Your task to perform on an android device: Clear the cart on amazon. Search for "bose soundlink" on amazon, select the first entry, add it to the cart, then select checkout. Image 0: 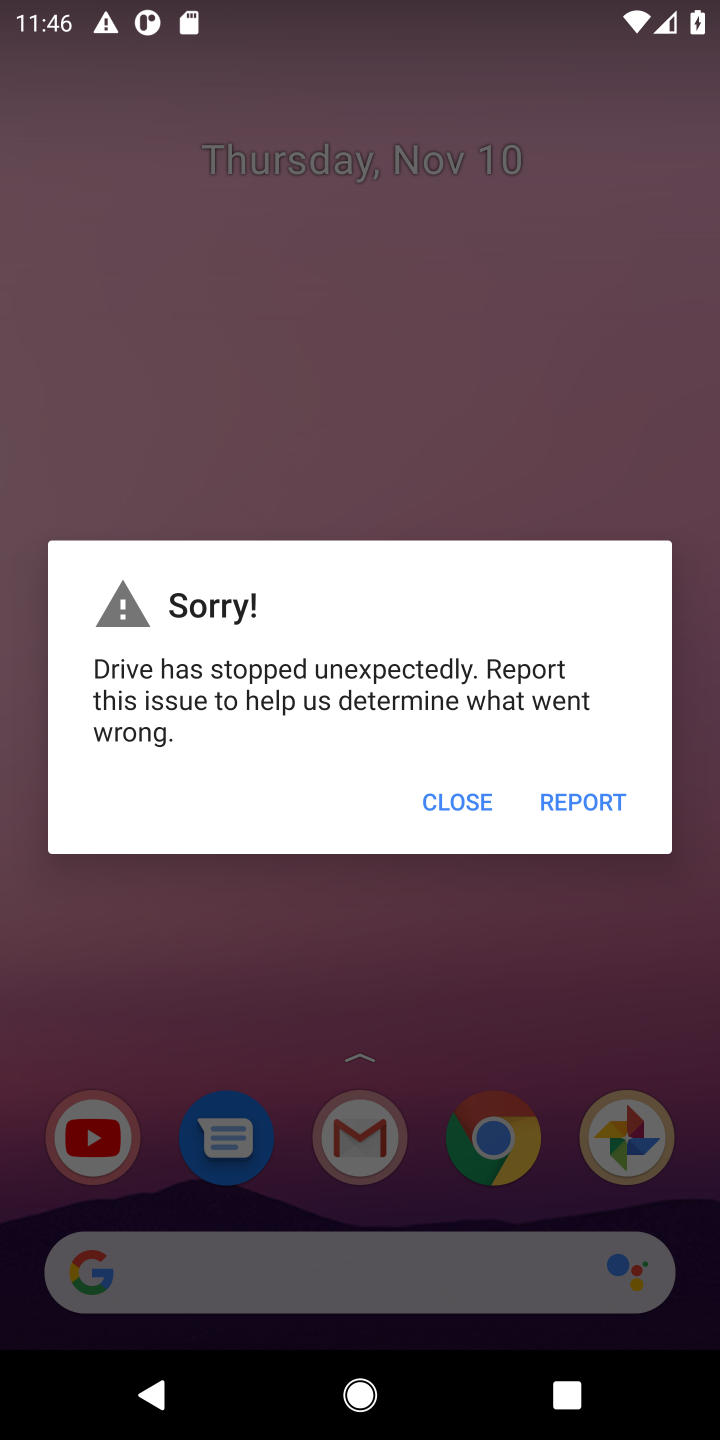
Step 0: click (476, 806)
Your task to perform on an android device: Clear the cart on amazon. Search for "bose soundlink" on amazon, select the first entry, add it to the cart, then select checkout. Image 1: 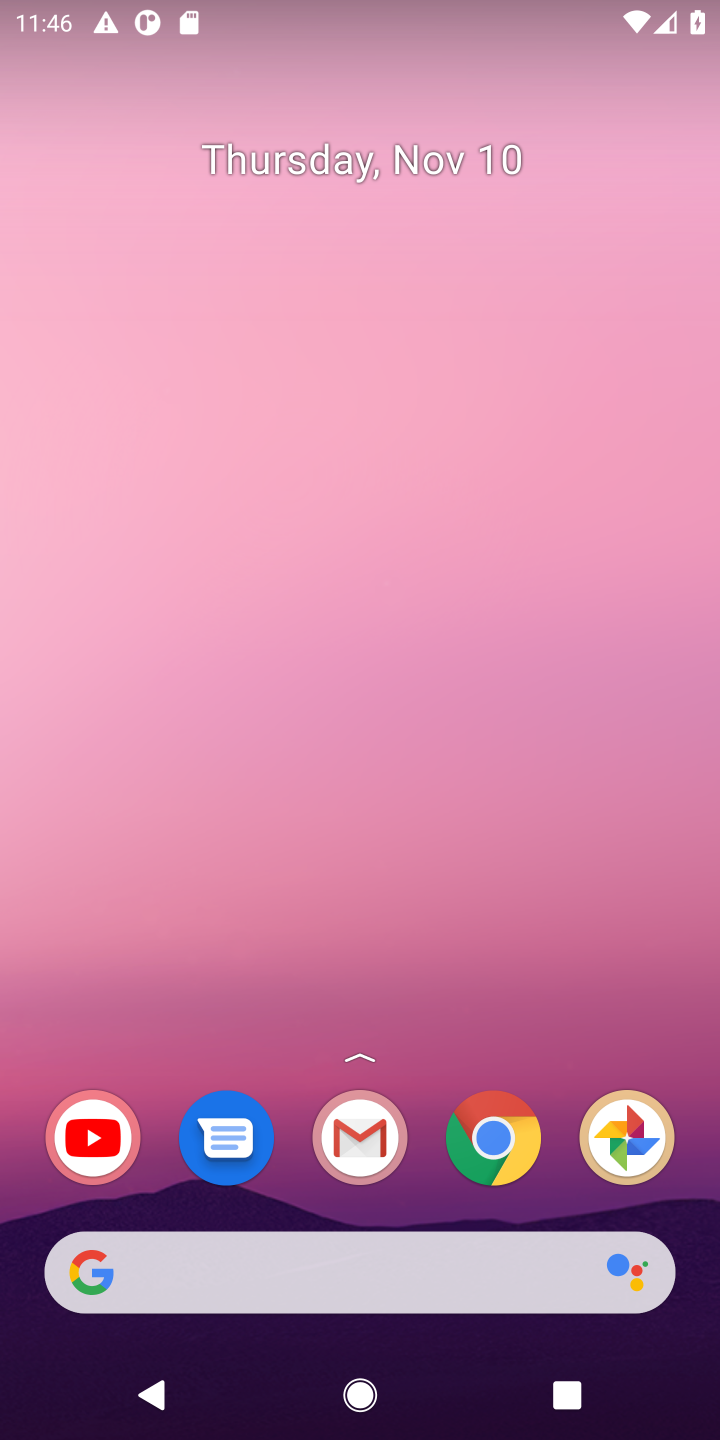
Step 1: click (496, 1147)
Your task to perform on an android device: Clear the cart on amazon. Search for "bose soundlink" on amazon, select the first entry, add it to the cart, then select checkout. Image 2: 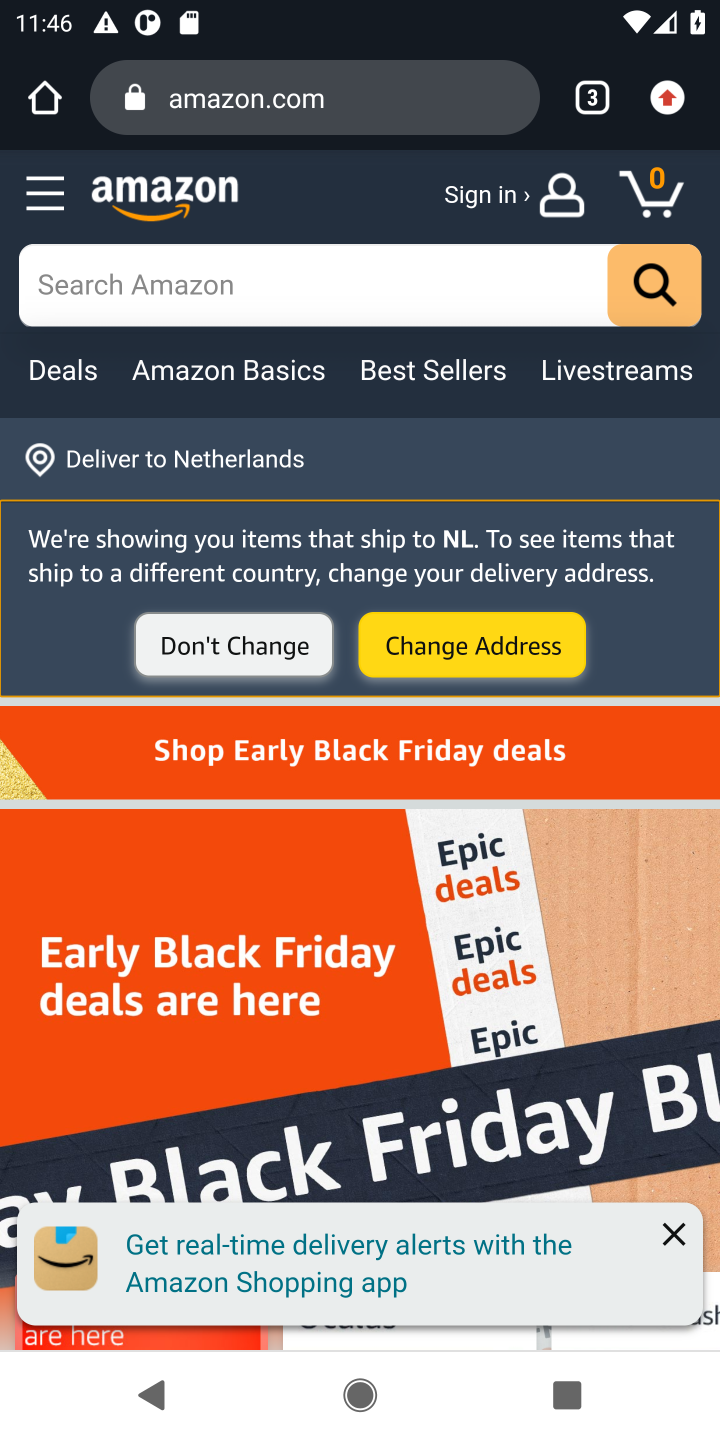
Step 2: click (298, 277)
Your task to perform on an android device: Clear the cart on amazon. Search for "bose soundlink" on amazon, select the first entry, add it to the cart, then select checkout. Image 3: 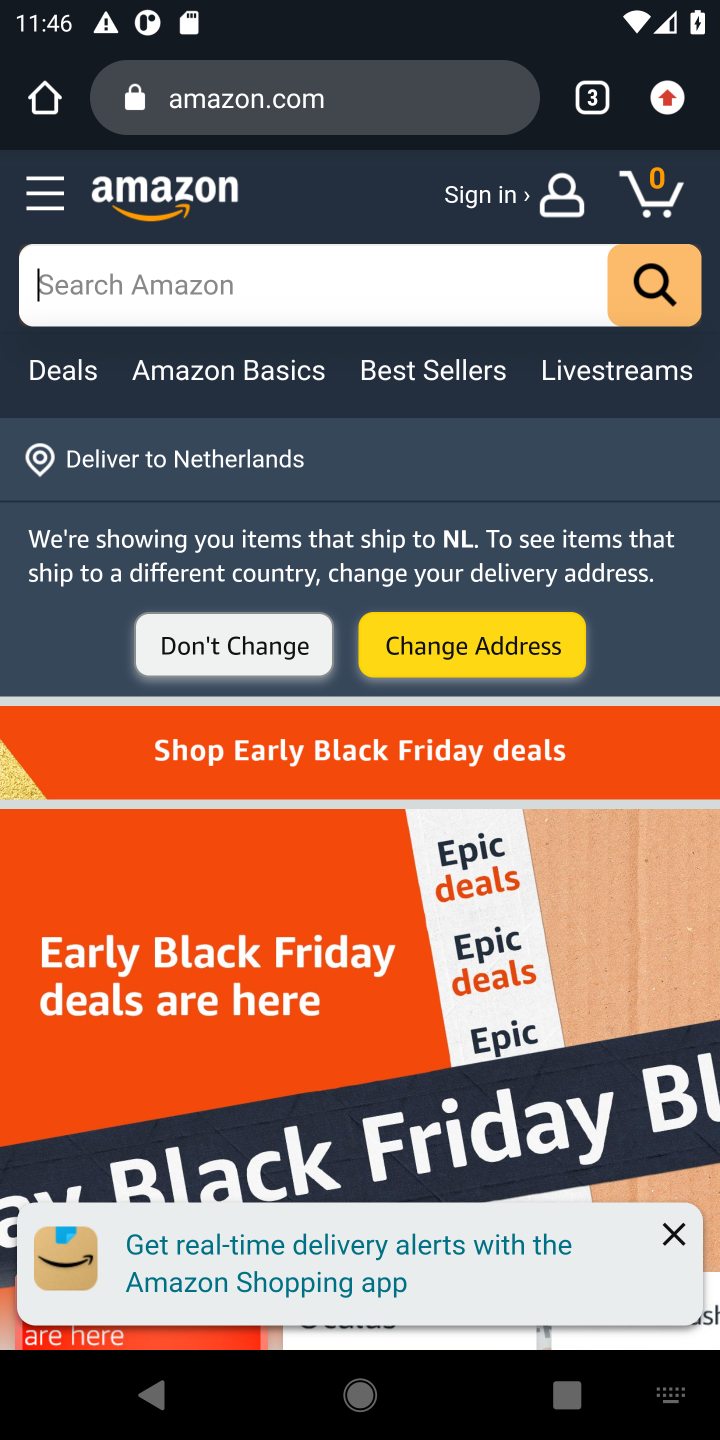
Step 3: type "bose soundlink"
Your task to perform on an android device: Clear the cart on amazon. Search for "bose soundlink" on amazon, select the first entry, add it to the cart, then select checkout. Image 4: 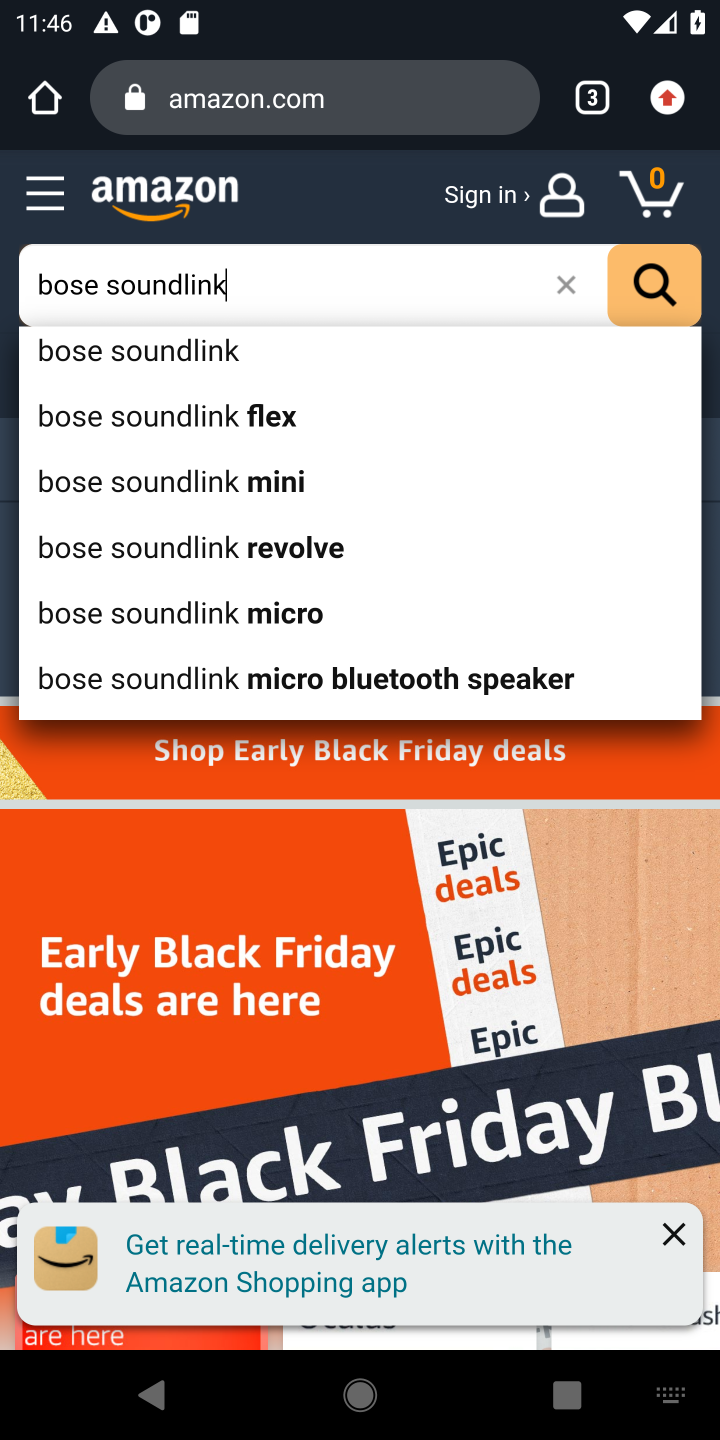
Step 4: click (192, 348)
Your task to perform on an android device: Clear the cart on amazon. Search for "bose soundlink" on amazon, select the first entry, add it to the cart, then select checkout. Image 5: 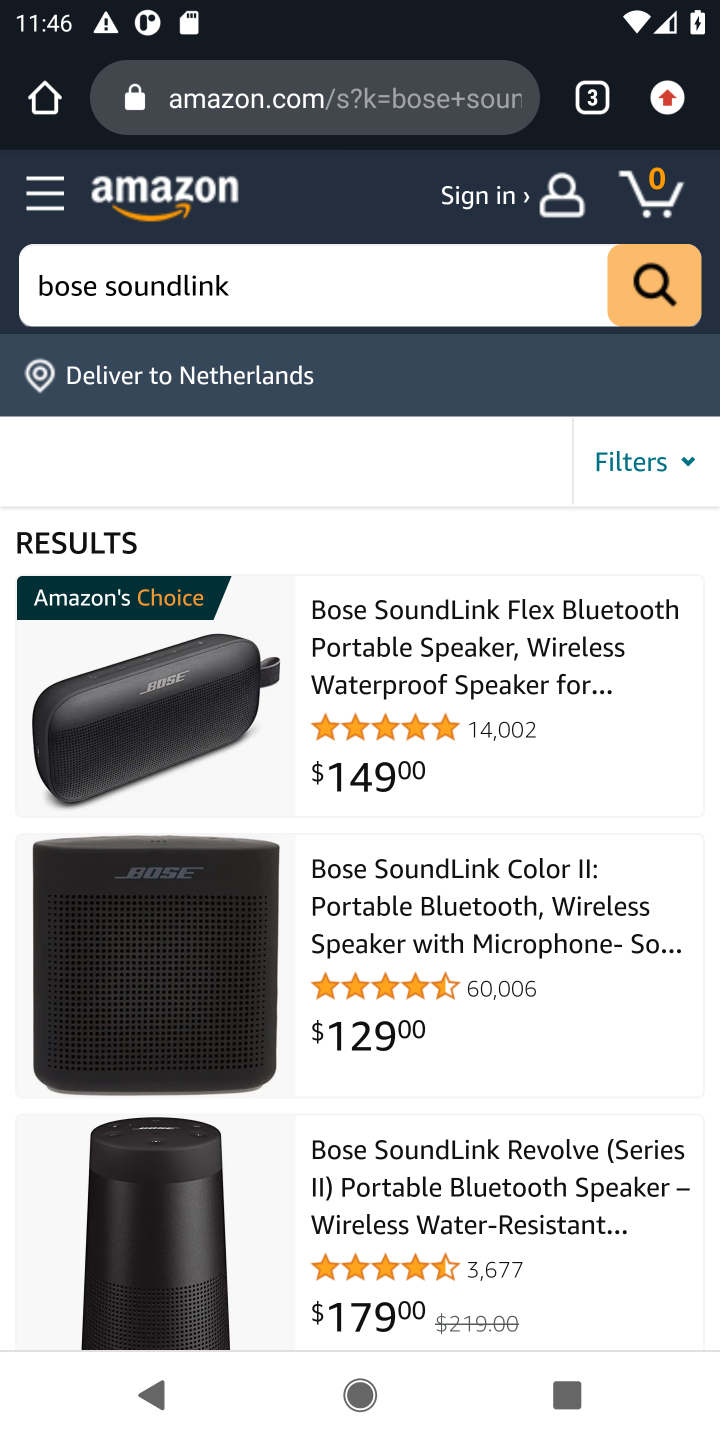
Step 5: click (428, 636)
Your task to perform on an android device: Clear the cart on amazon. Search for "bose soundlink" on amazon, select the first entry, add it to the cart, then select checkout. Image 6: 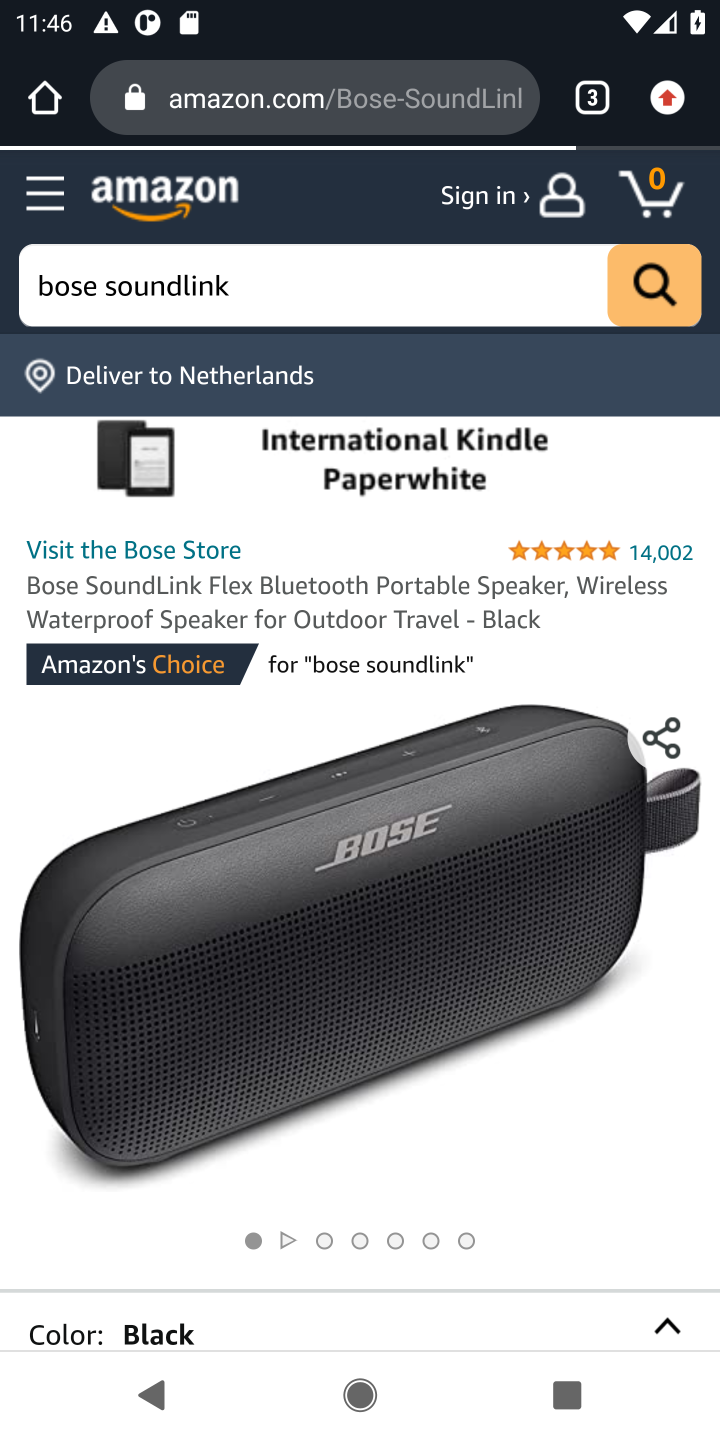
Step 6: drag from (556, 512) to (585, 415)
Your task to perform on an android device: Clear the cart on amazon. Search for "bose soundlink" on amazon, select the first entry, add it to the cart, then select checkout. Image 7: 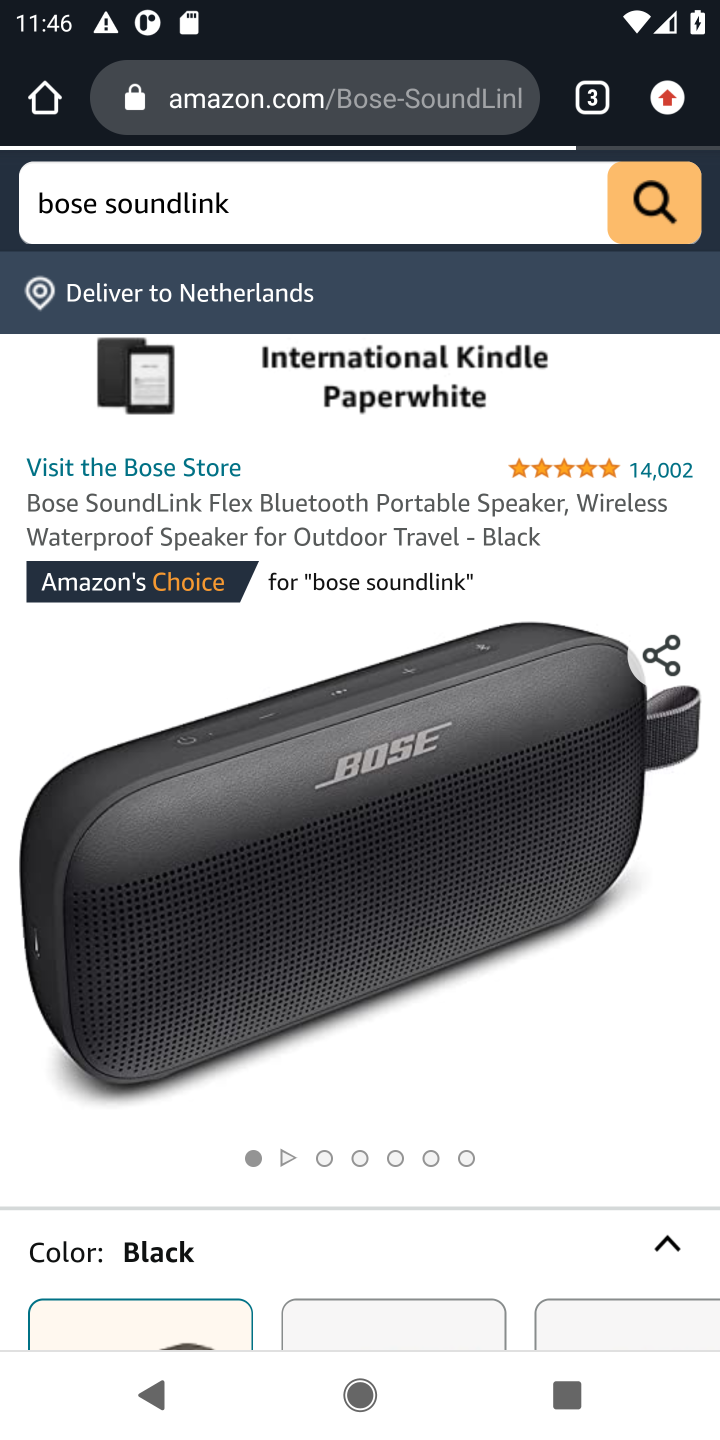
Step 7: drag from (404, 1175) to (449, 1045)
Your task to perform on an android device: Clear the cart on amazon. Search for "bose soundlink" on amazon, select the first entry, add it to the cart, then select checkout. Image 8: 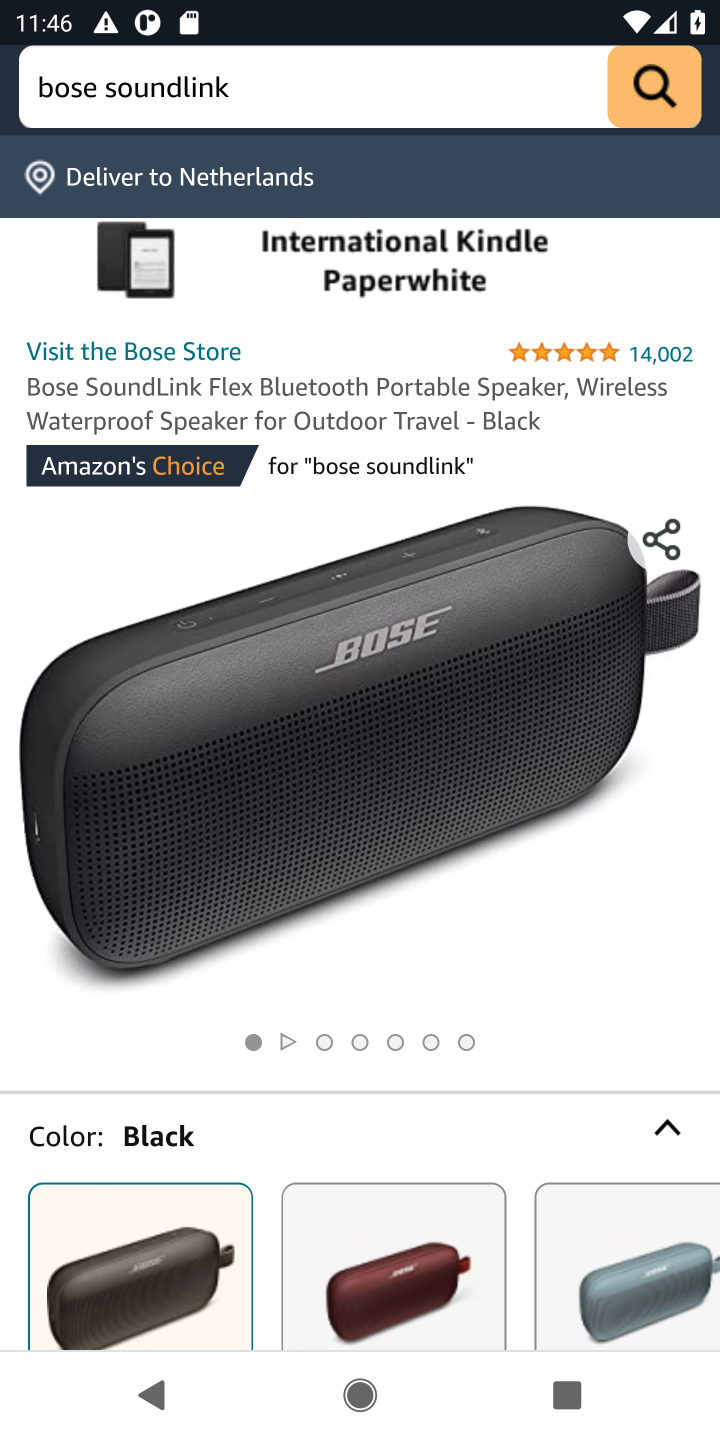
Step 8: drag from (413, 1131) to (491, 968)
Your task to perform on an android device: Clear the cart on amazon. Search for "bose soundlink" on amazon, select the first entry, add it to the cart, then select checkout. Image 9: 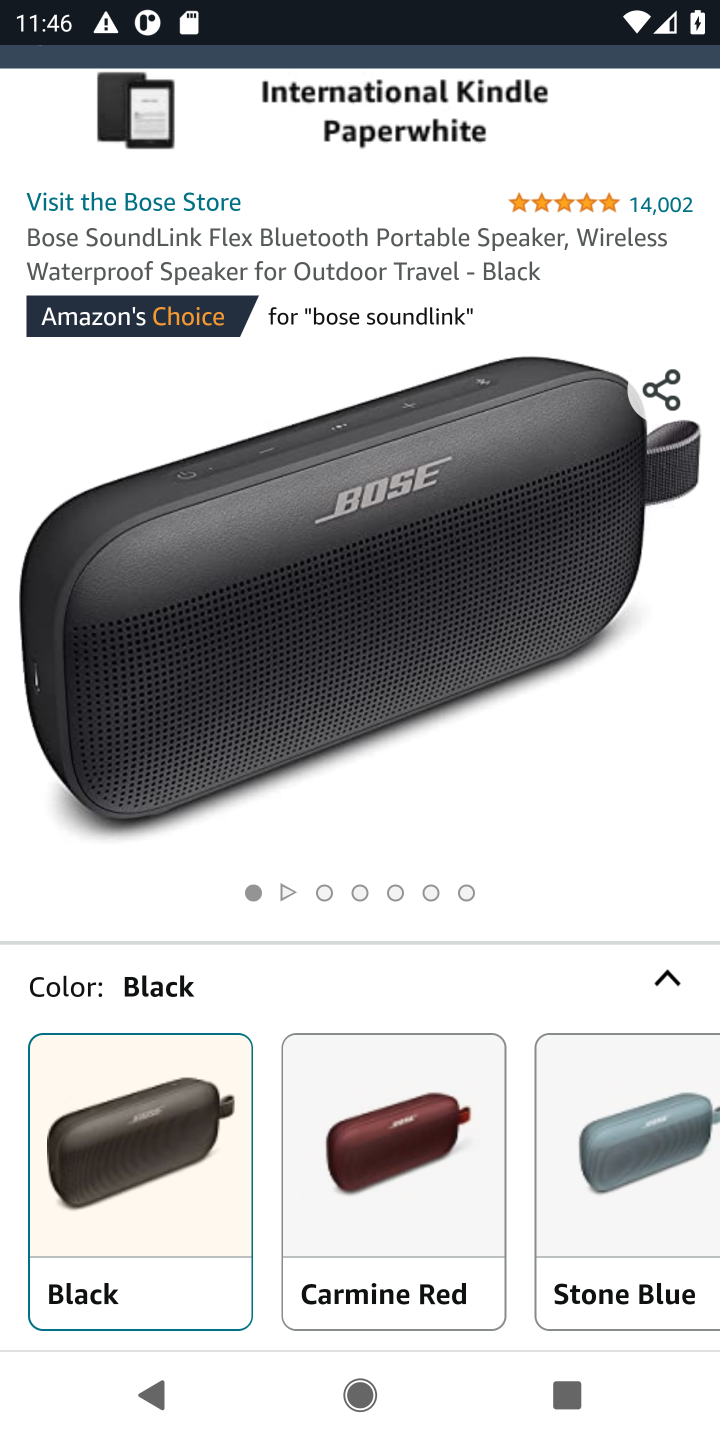
Step 9: drag from (516, 900) to (603, 632)
Your task to perform on an android device: Clear the cart on amazon. Search for "bose soundlink" on amazon, select the first entry, add it to the cart, then select checkout. Image 10: 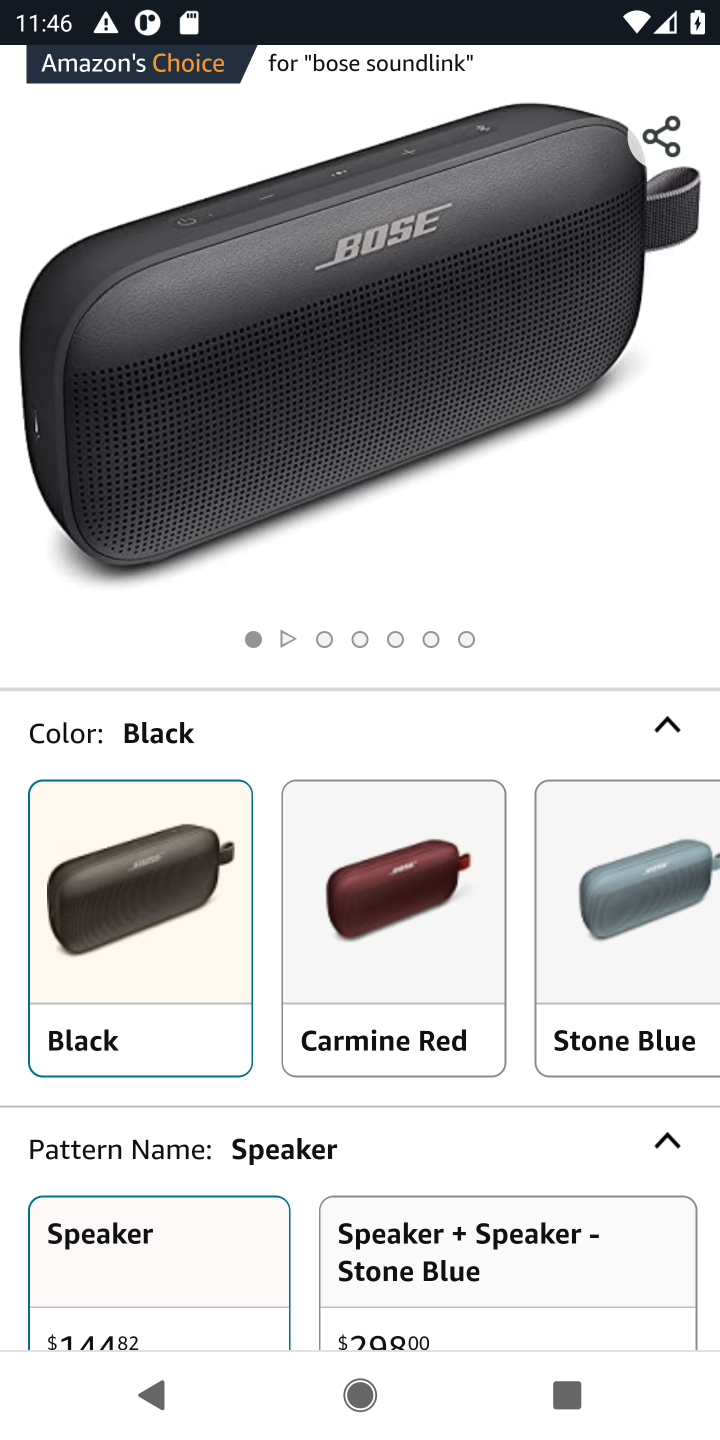
Step 10: click (426, 773)
Your task to perform on an android device: Clear the cart on amazon. Search for "bose soundlink" on amazon, select the first entry, add it to the cart, then select checkout. Image 11: 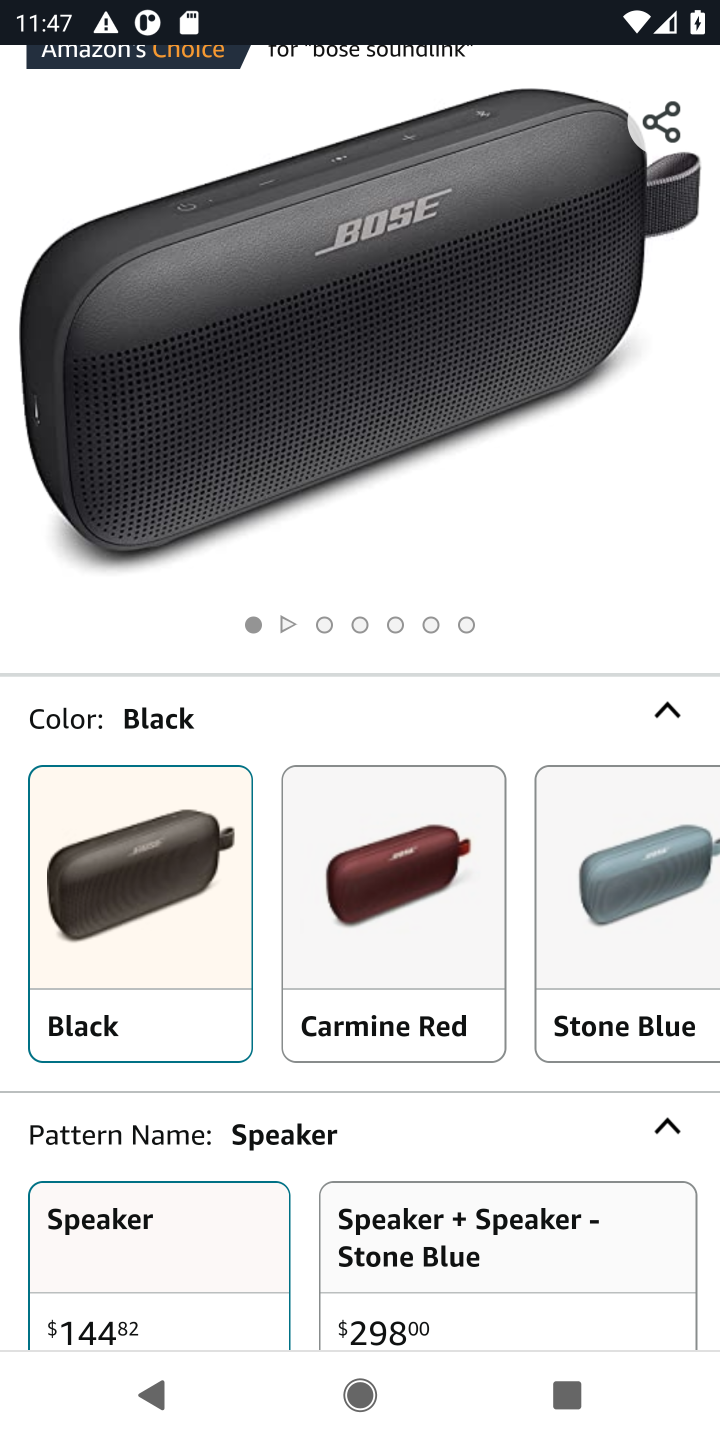
Step 11: drag from (359, 679) to (522, 297)
Your task to perform on an android device: Clear the cart on amazon. Search for "bose soundlink" on amazon, select the first entry, add it to the cart, then select checkout. Image 12: 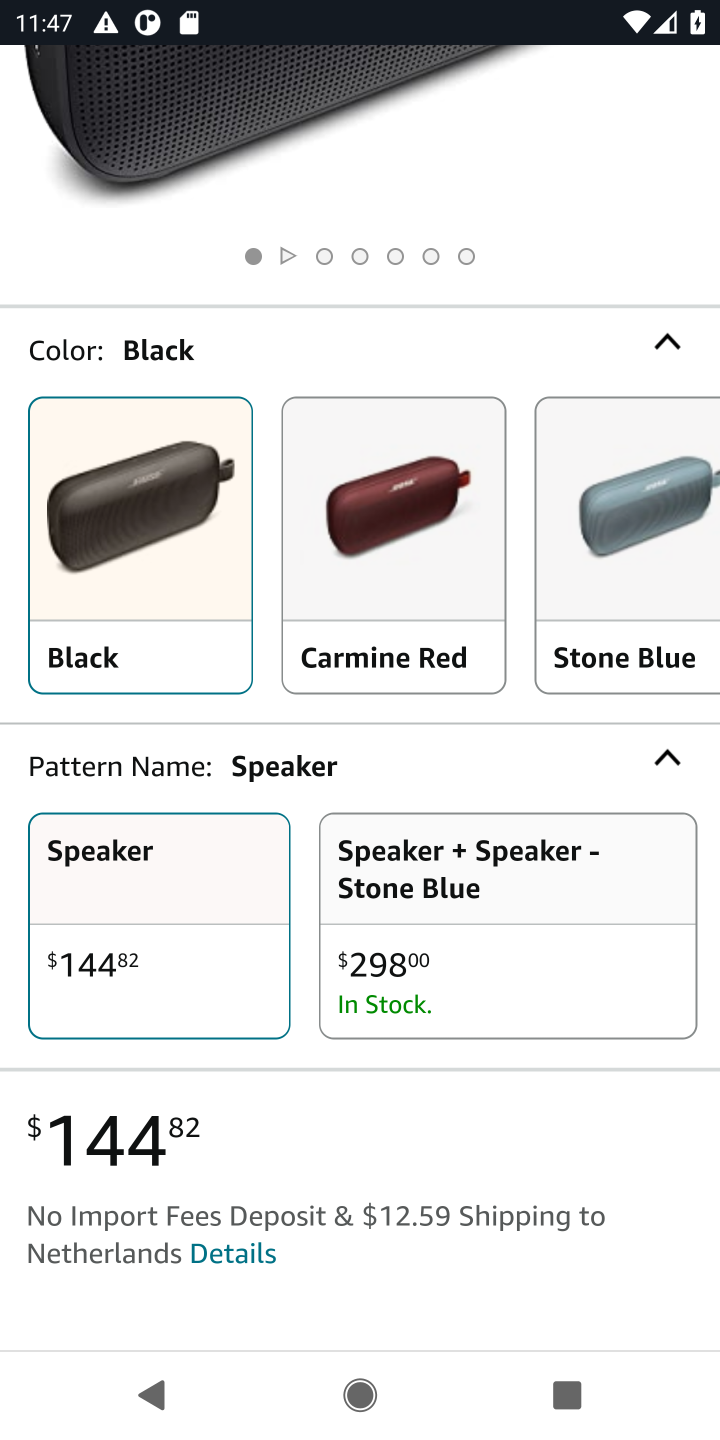
Step 12: click (384, 1144)
Your task to perform on an android device: Clear the cart on amazon. Search for "bose soundlink" on amazon, select the first entry, add it to the cart, then select checkout. Image 13: 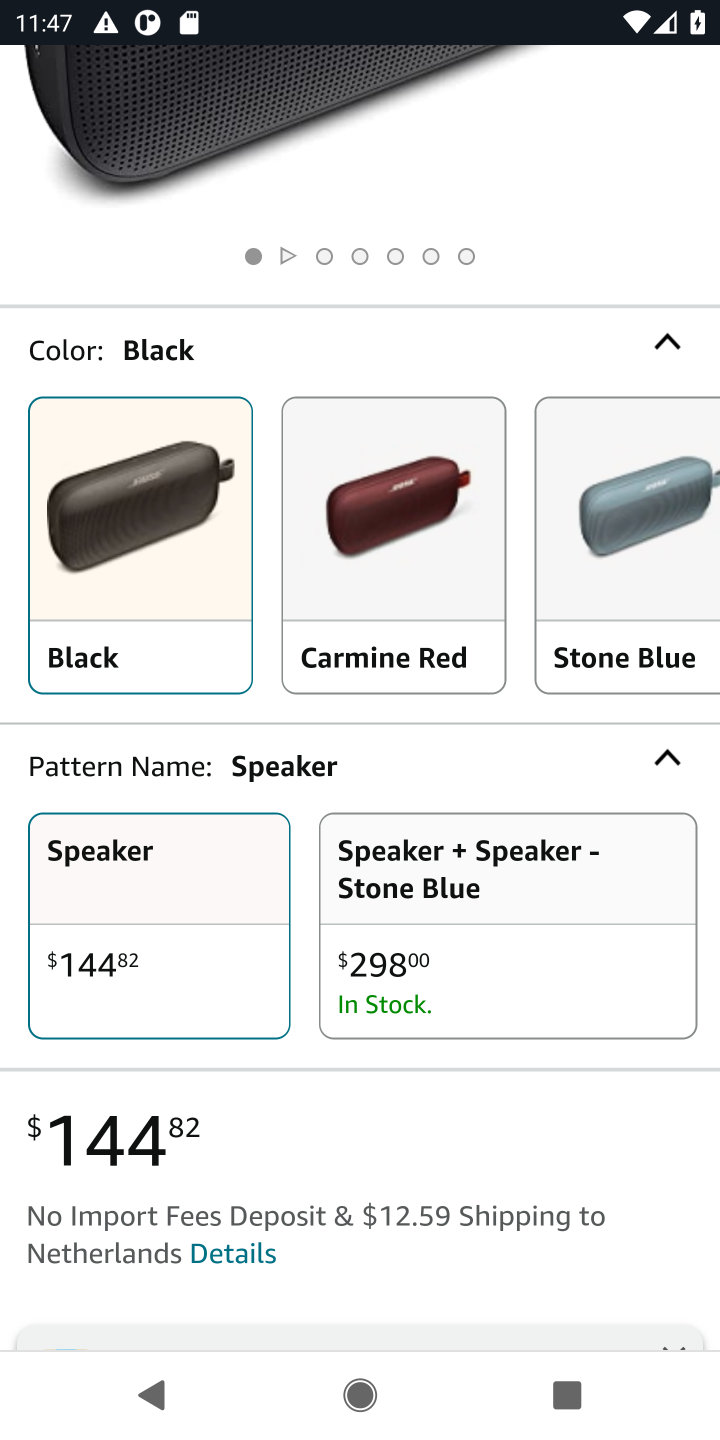
Step 13: drag from (695, 177) to (683, 968)
Your task to perform on an android device: Clear the cart on amazon. Search for "bose soundlink" on amazon, select the first entry, add it to the cart, then select checkout. Image 14: 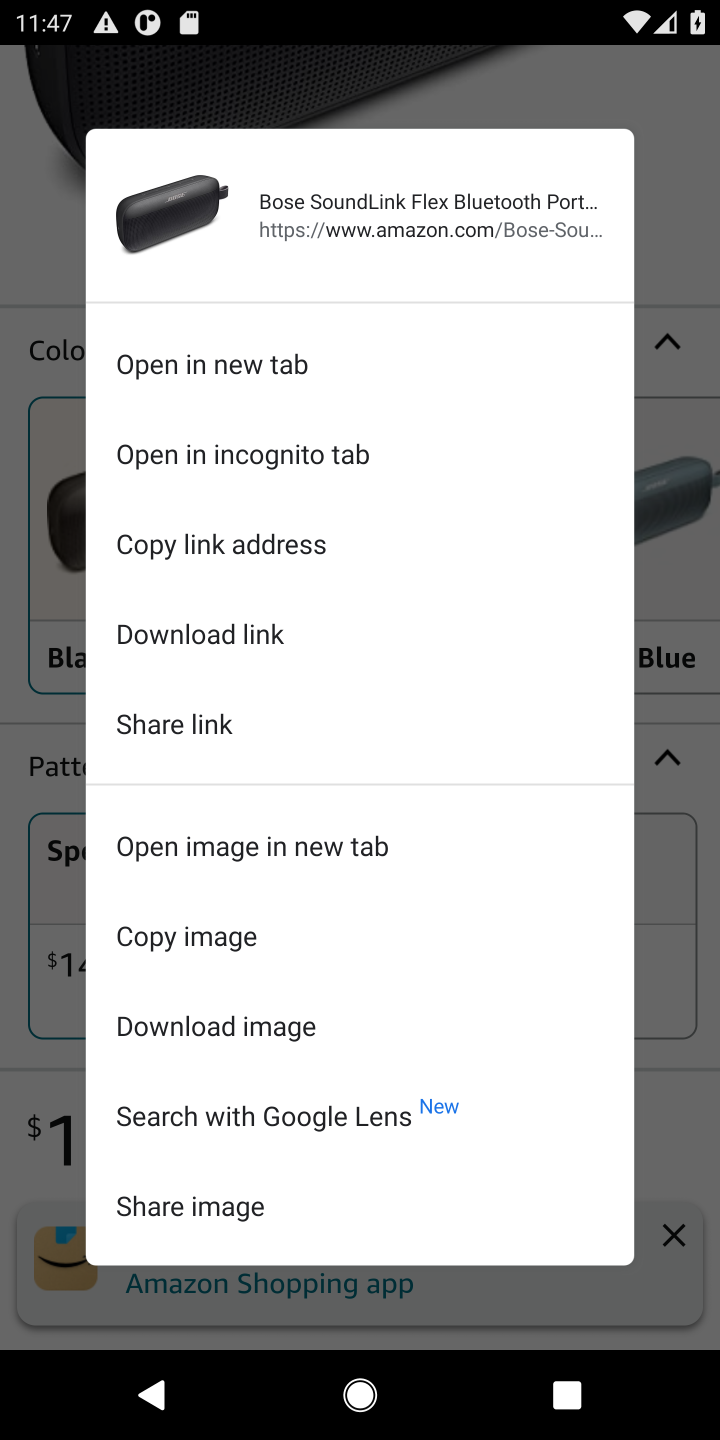
Step 14: click (676, 1064)
Your task to perform on an android device: Clear the cart on amazon. Search for "bose soundlink" on amazon, select the first entry, add it to the cart, then select checkout. Image 15: 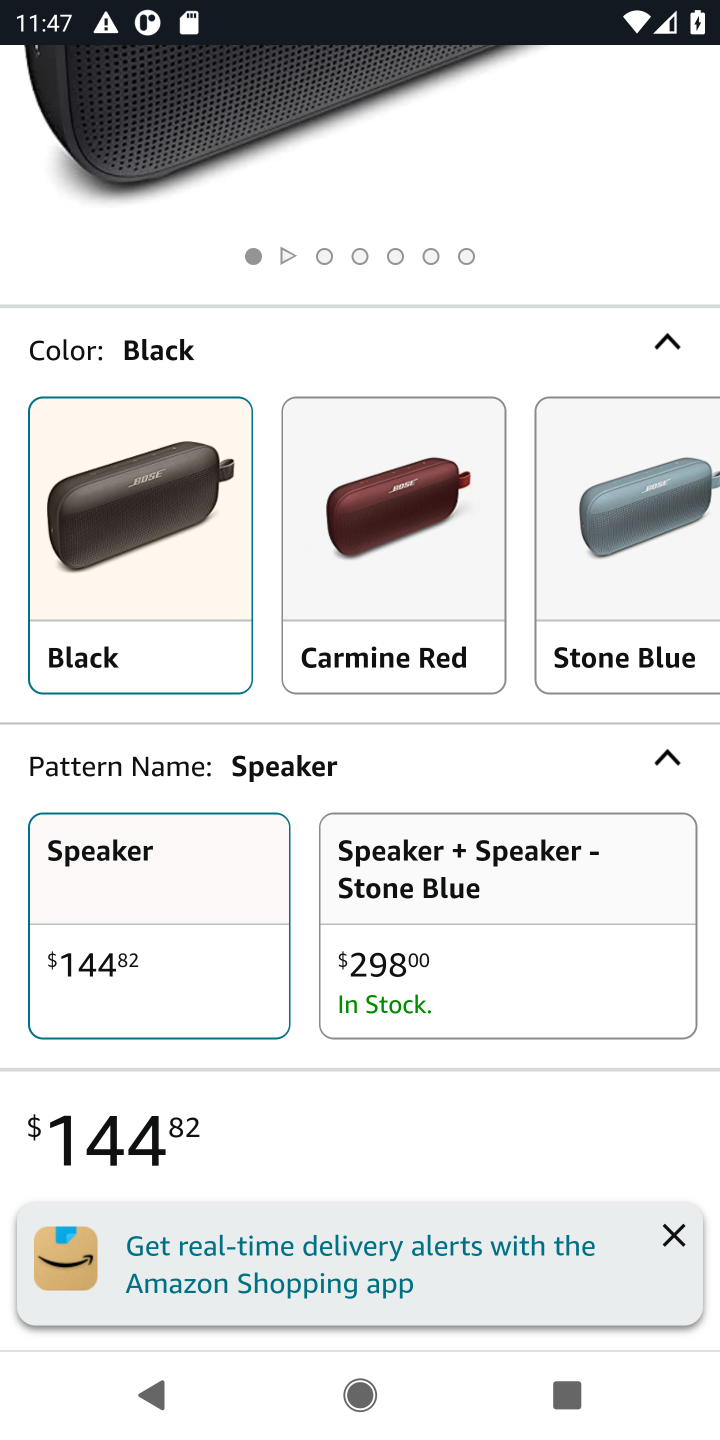
Step 15: drag from (461, 1062) to (689, 589)
Your task to perform on an android device: Clear the cart on amazon. Search for "bose soundlink" on amazon, select the first entry, add it to the cart, then select checkout. Image 16: 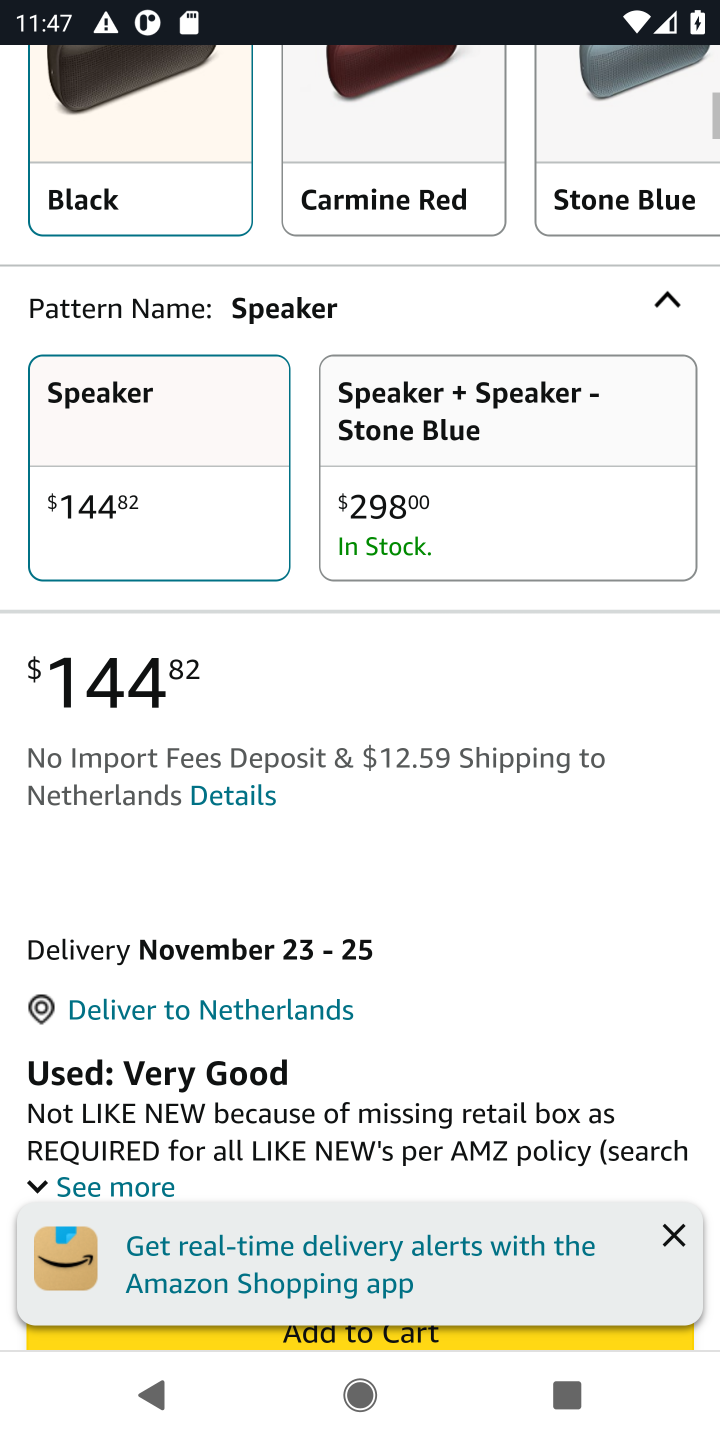
Step 16: click (370, 785)
Your task to perform on an android device: Clear the cart on amazon. Search for "bose soundlink" on amazon, select the first entry, add it to the cart, then select checkout. Image 17: 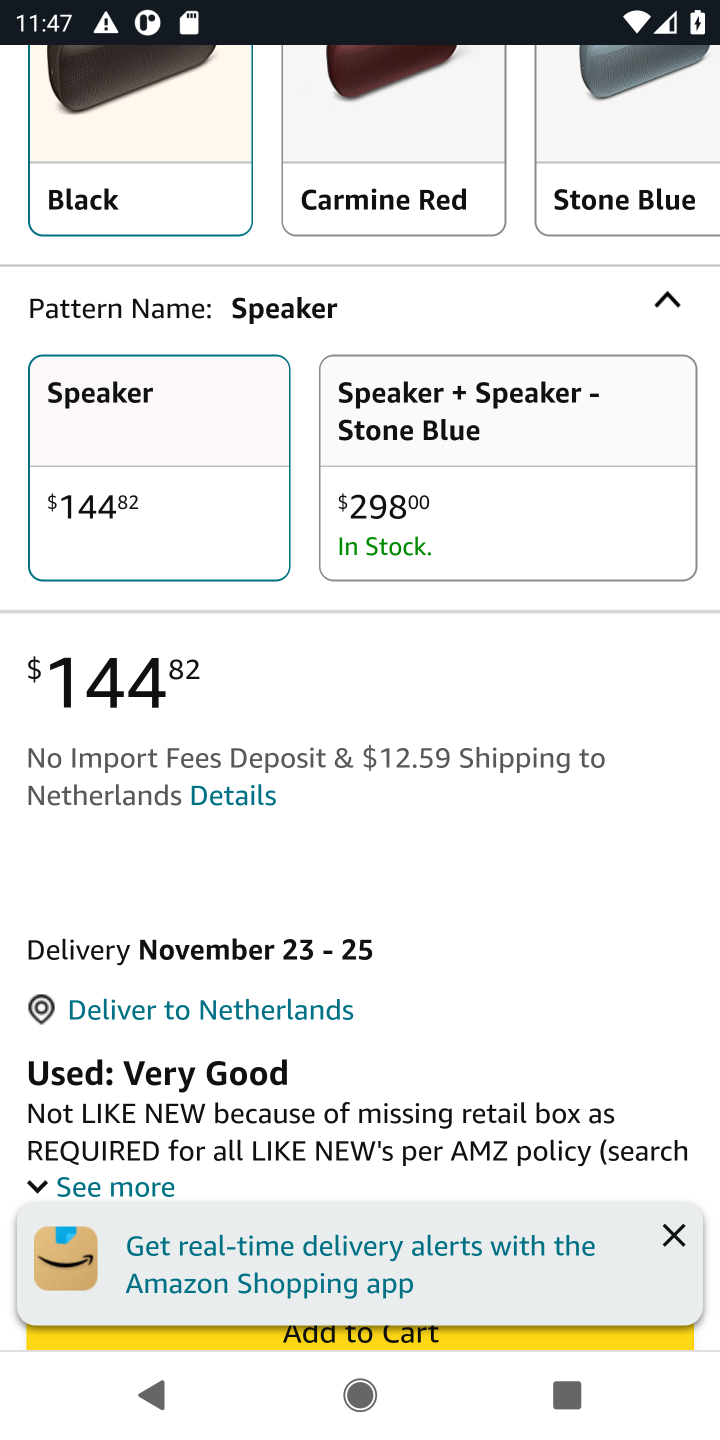
Step 17: click (676, 1229)
Your task to perform on an android device: Clear the cart on amazon. Search for "bose soundlink" on amazon, select the first entry, add it to the cart, then select checkout. Image 18: 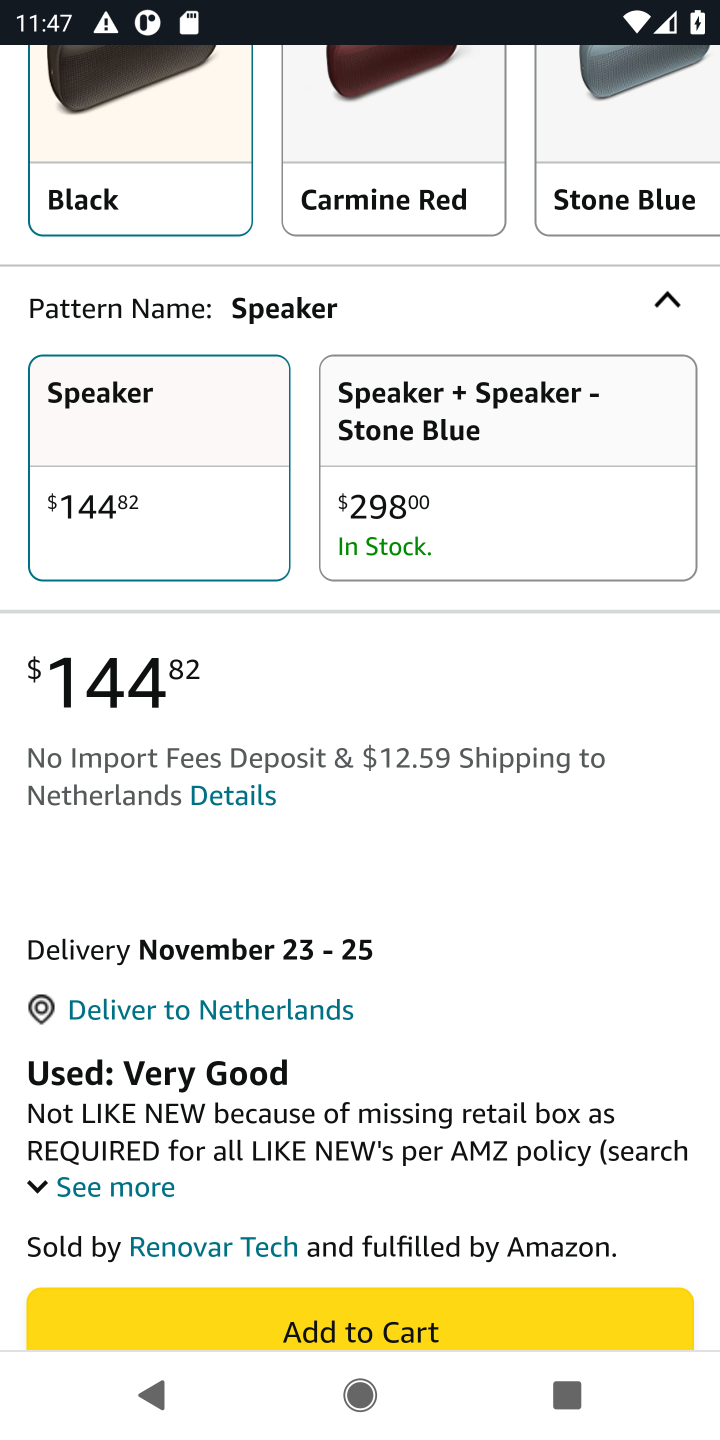
Step 18: click (465, 1317)
Your task to perform on an android device: Clear the cart on amazon. Search for "bose soundlink" on amazon, select the first entry, add it to the cart, then select checkout. Image 19: 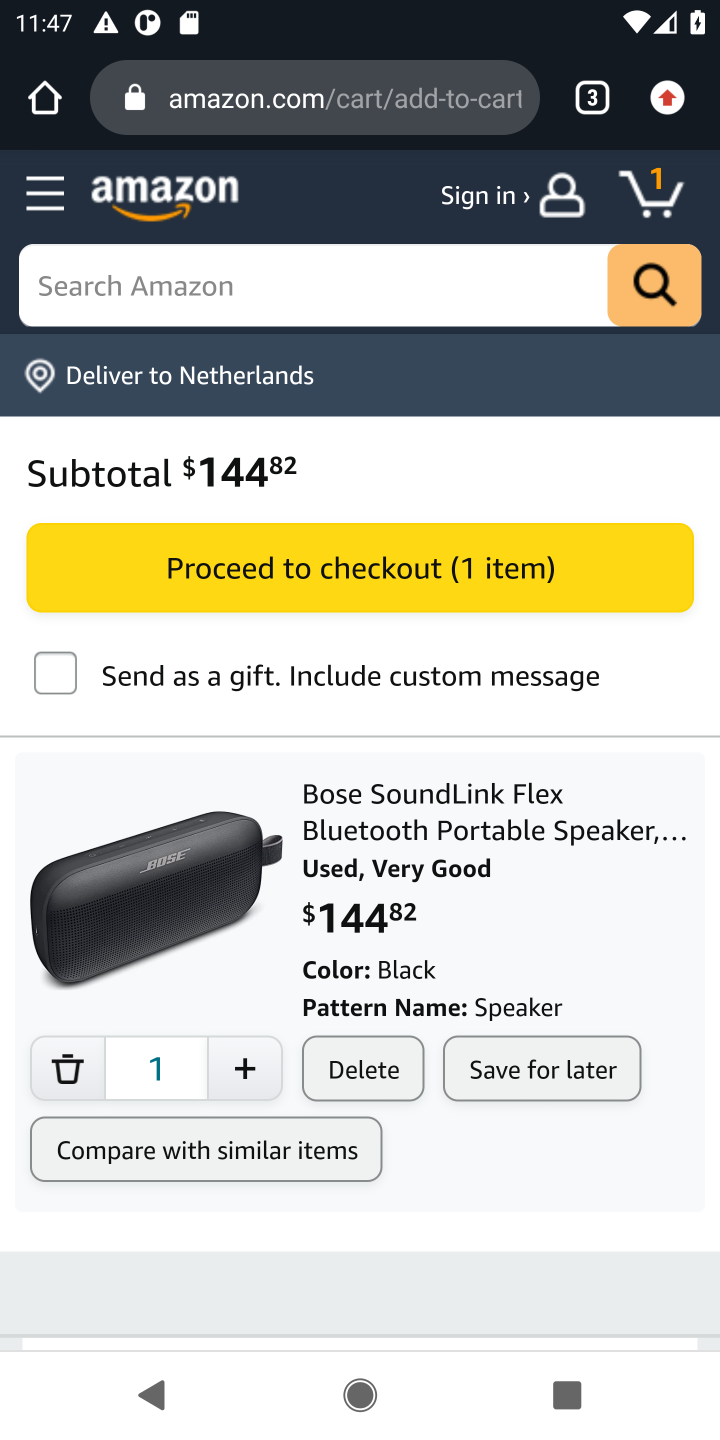
Step 19: click (469, 546)
Your task to perform on an android device: Clear the cart on amazon. Search for "bose soundlink" on amazon, select the first entry, add it to the cart, then select checkout. Image 20: 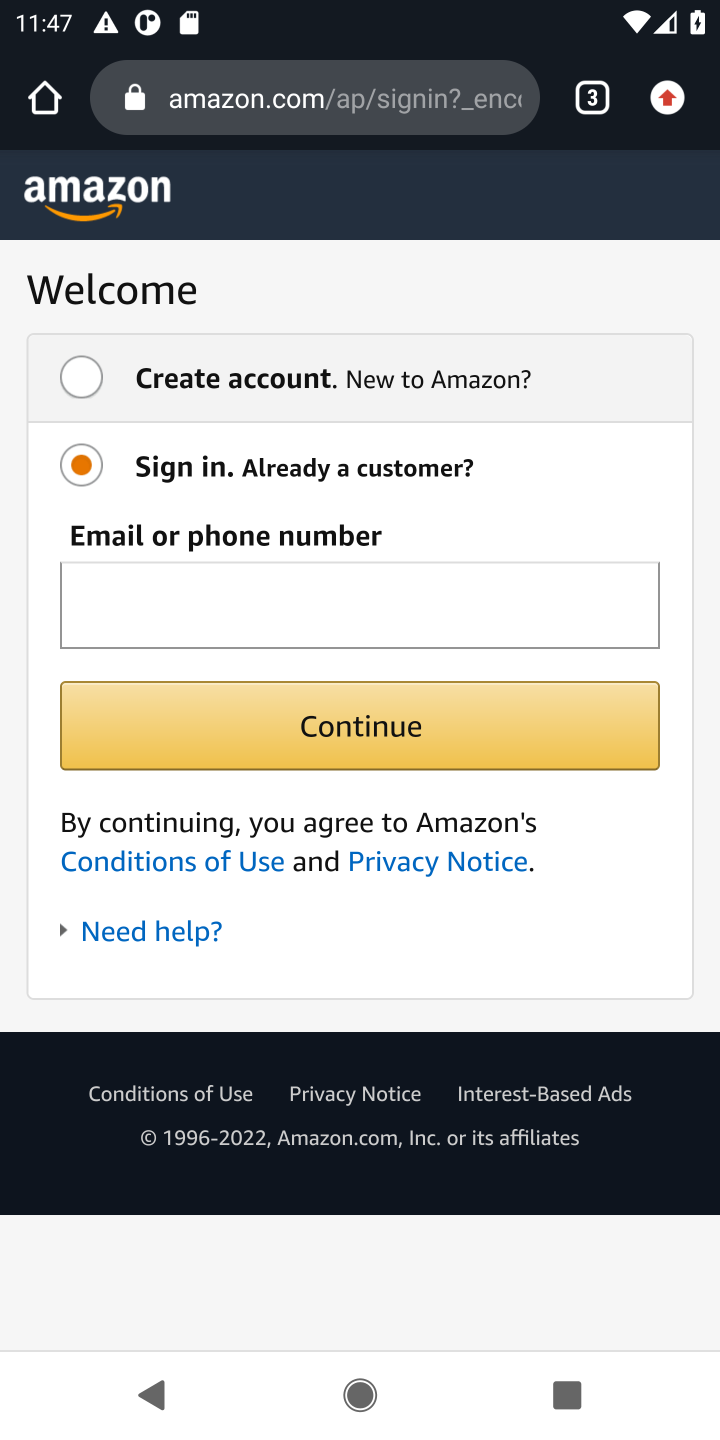
Step 20: task complete